Your task to perform on an android device: set the timer Image 0: 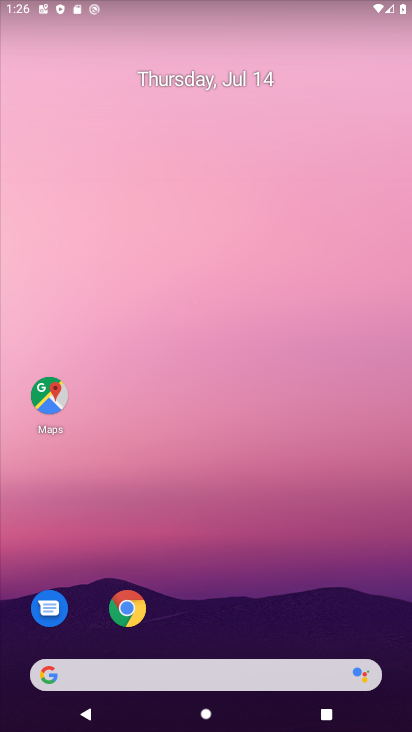
Step 0: drag from (323, 589) to (331, 46)
Your task to perform on an android device: set the timer Image 1: 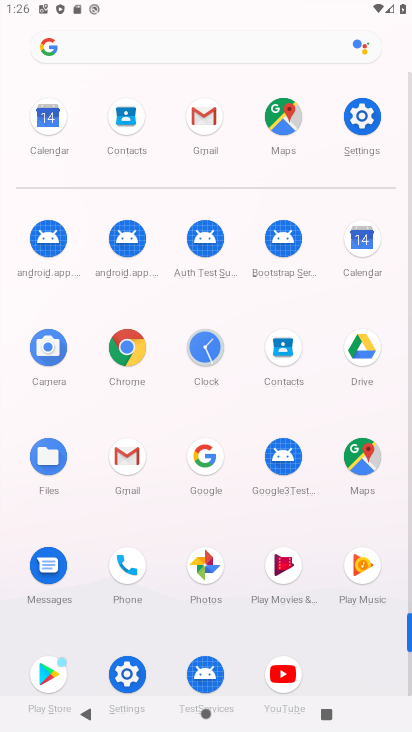
Step 1: click (202, 348)
Your task to perform on an android device: set the timer Image 2: 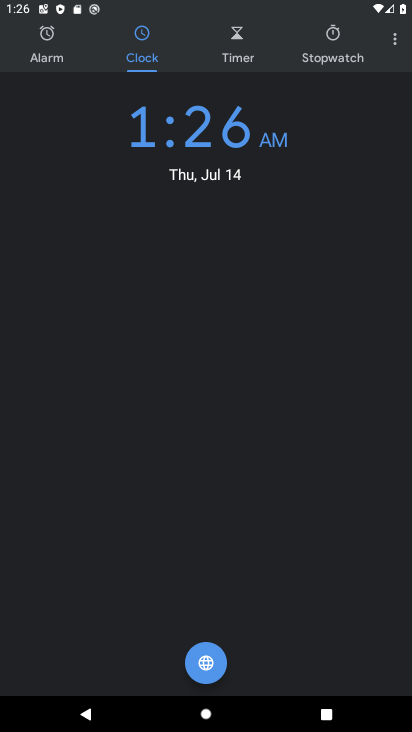
Step 2: click (243, 43)
Your task to perform on an android device: set the timer Image 3: 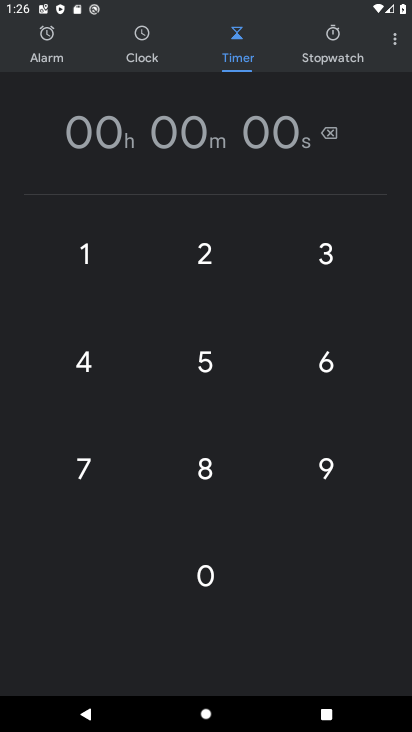
Step 3: click (86, 253)
Your task to perform on an android device: set the timer Image 4: 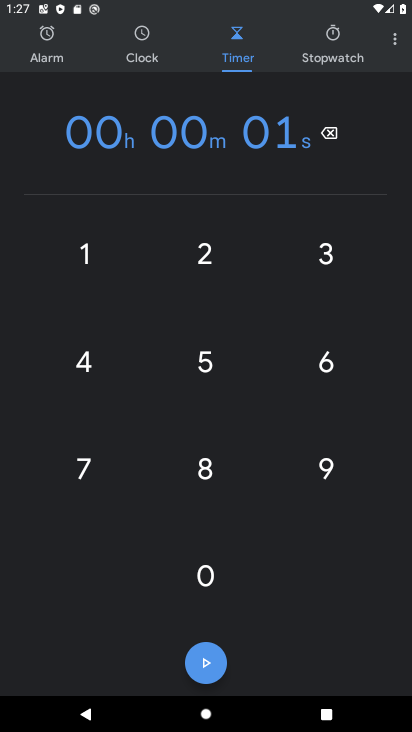
Step 4: click (335, 251)
Your task to perform on an android device: set the timer Image 5: 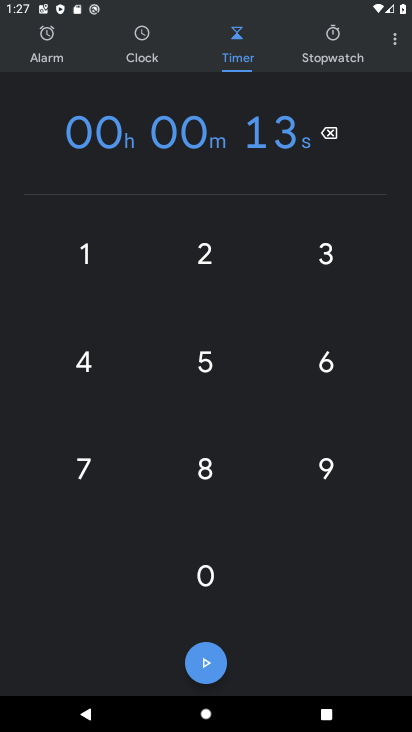
Step 5: click (211, 573)
Your task to perform on an android device: set the timer Image 6: 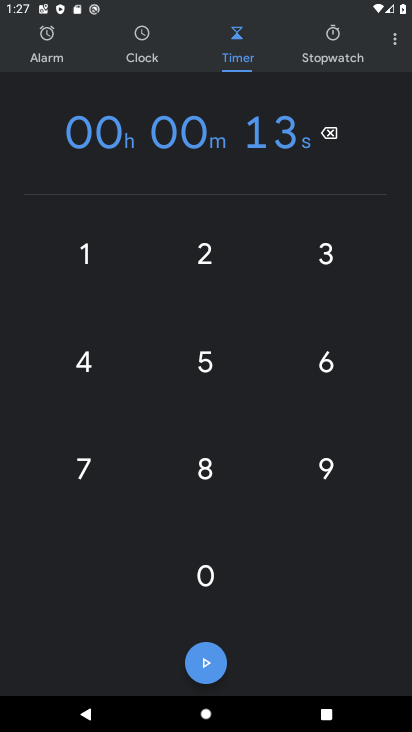
Step 6: click (211, 573)
Your task to perform on an android device: set the timer Image 7: 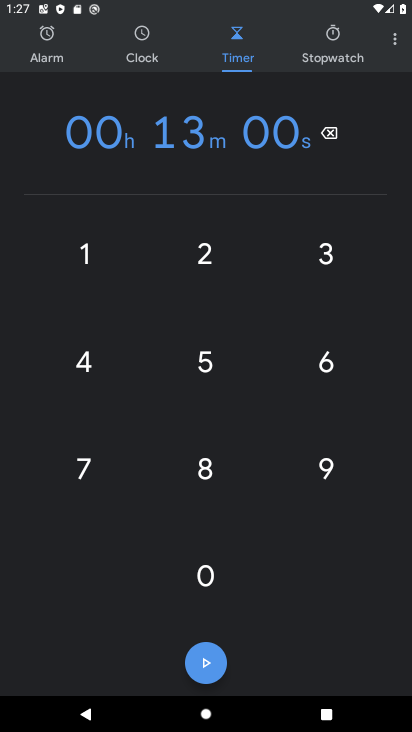
Step 7: task complete